Your task to perform on an android device: Open the stopwatch Image 0: 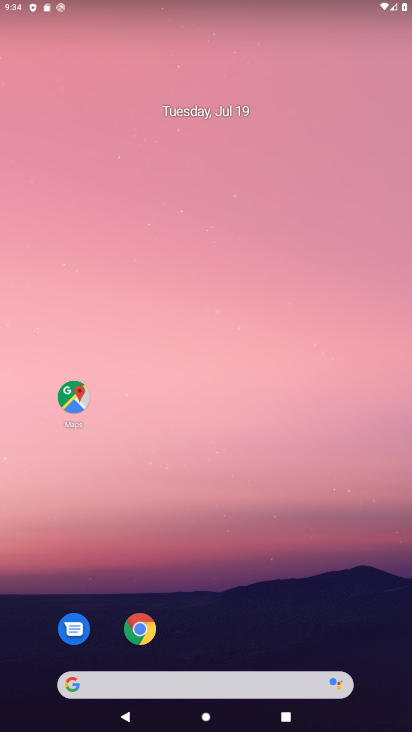
Step 0: drag from (253, 623) to (206, 123)
Your task to perform on an android device: Open the stopwatch Image 1: 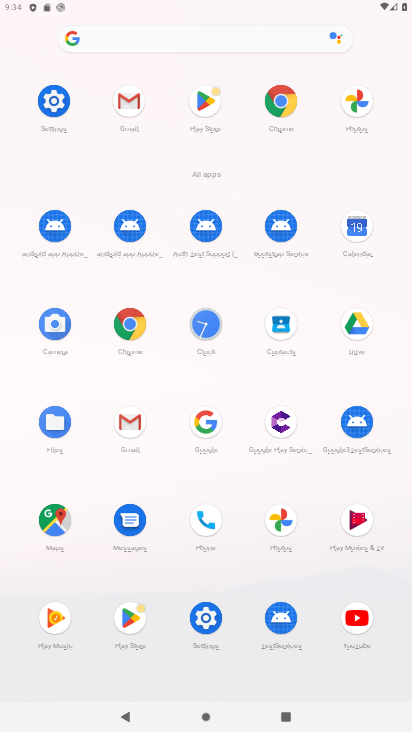
Step 1: click (206, 327)
Your task to perform on an android device: Open the stopwatch Image 2: 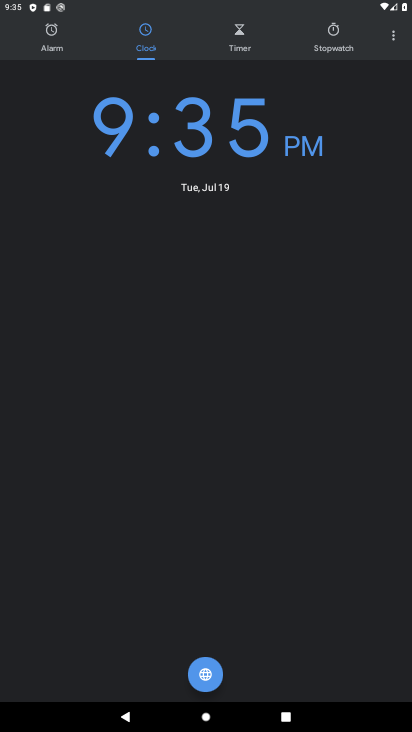
Step 2: click (334, 31)
Your task to perform on an android device: Open the stopwatch Image 3: 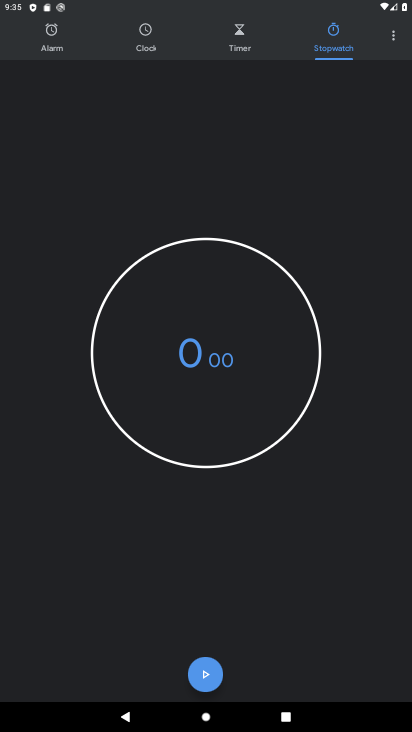
Step 3: task complete